Your task to perform on an android device: Open settings Image 0: 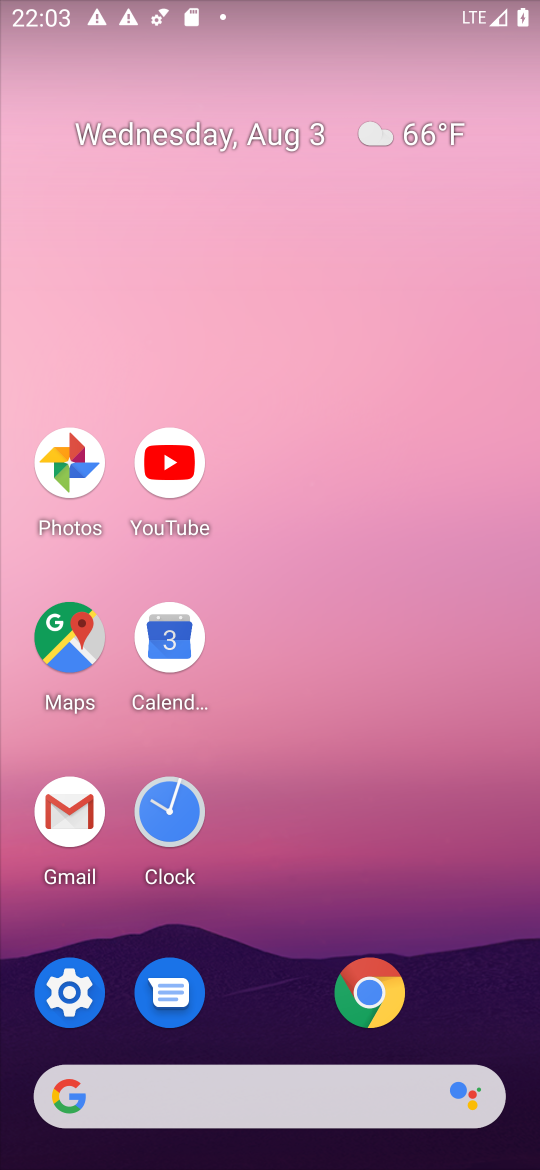
Step 0: click (58, 1002)
Your task to perform on an android device: Open settings Image 1: 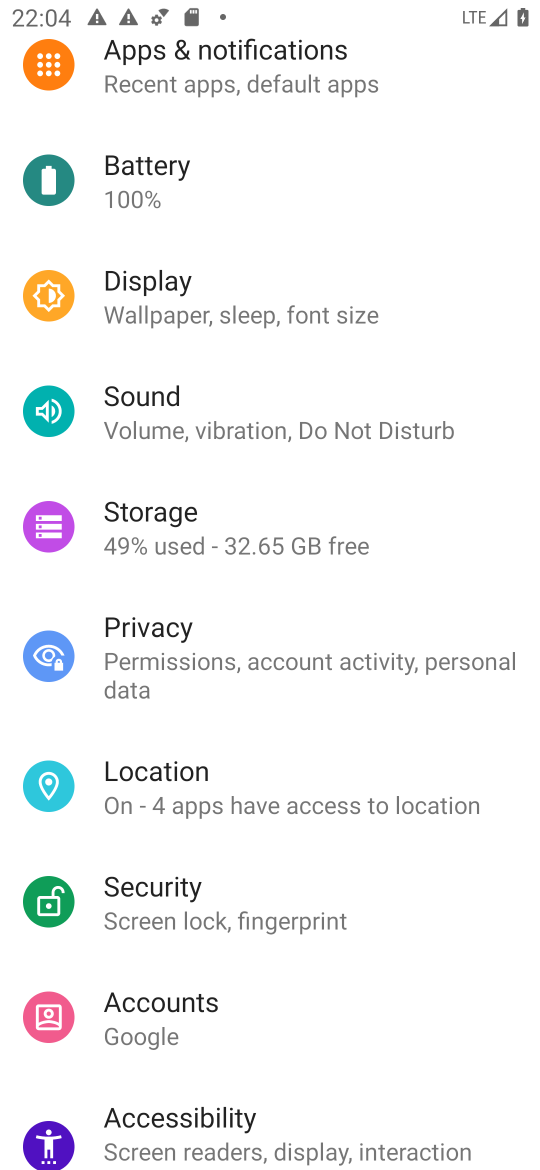
Step 1: task complete